Your task to perform on an android device: check storage Image 0: 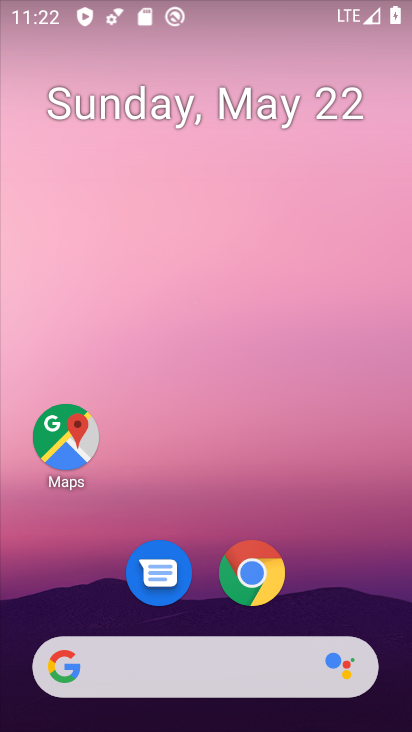
Step 0: drag from (206, 619) to (263, 0)
Your task to perform on an android device: check storage Image 1: 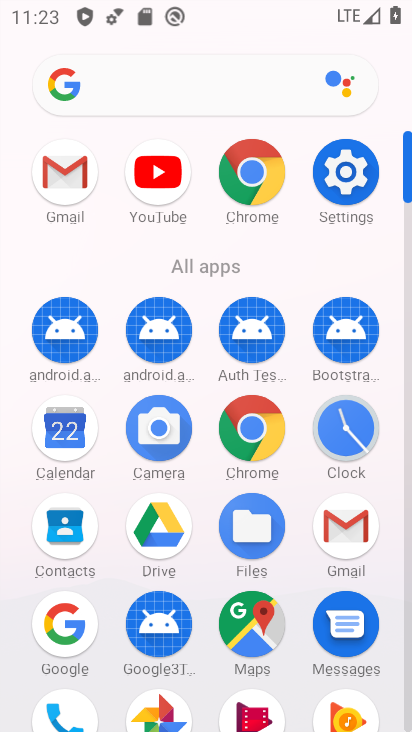
Step 1: click (345, 176)
Your task to perform on an android device: check storage Image 2: 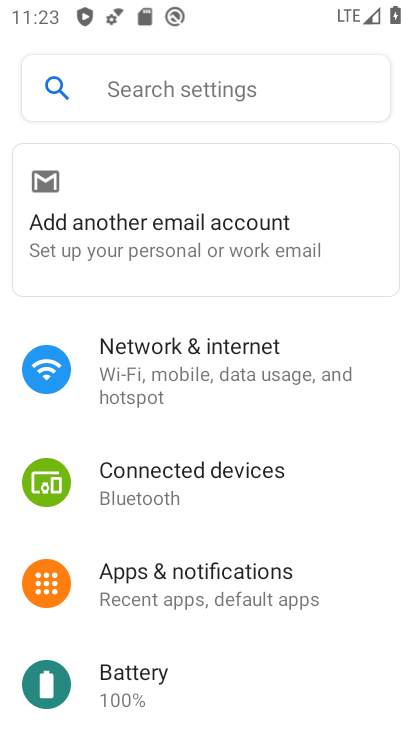
Step 2: drag from (182, 594) to (257, 143)
Your task to perform on an android device: check storage Image 3: 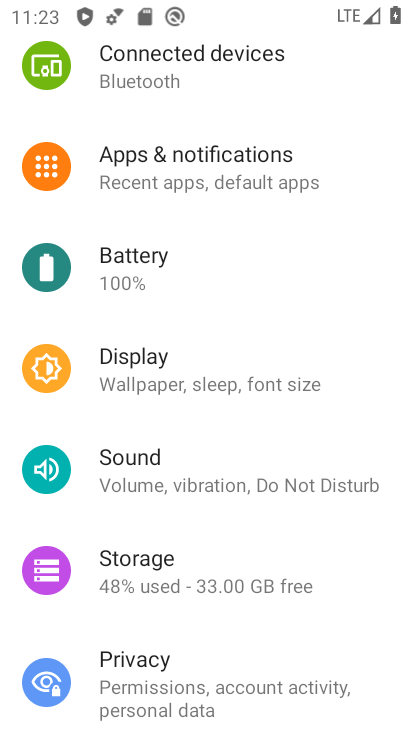
Step 3: click (173, 569)
Your task to perform on an android device: check storage Image 4: 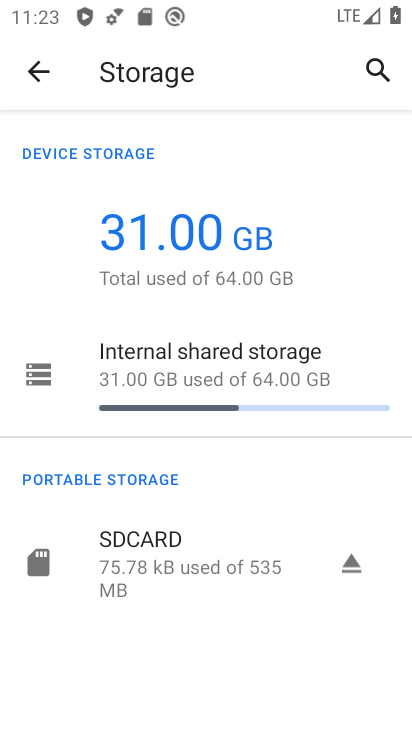
Step 4: click (300, 392)
Your task to perform on an android device: check storage Image 5: 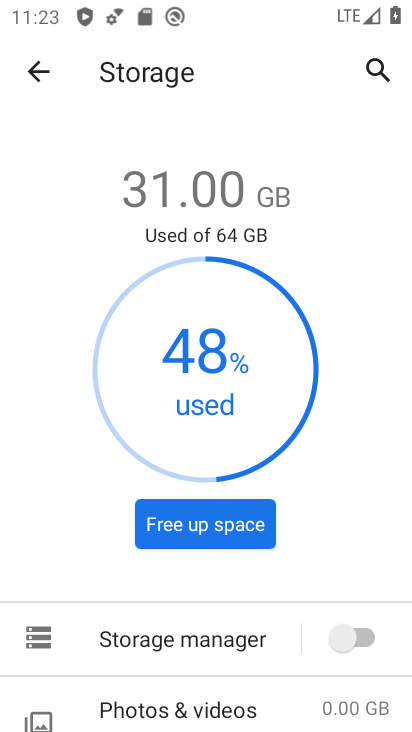
Step 5: task complete